Your task to perform on an android device: toggle priority inbox in the gmail app Image 0: 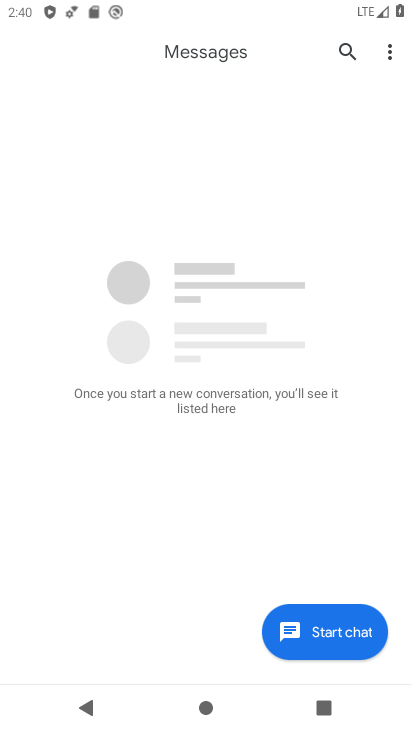
Step 0: press home button
Your task to perform on an android device: toggle priority inbox in the gmail app Image 1: 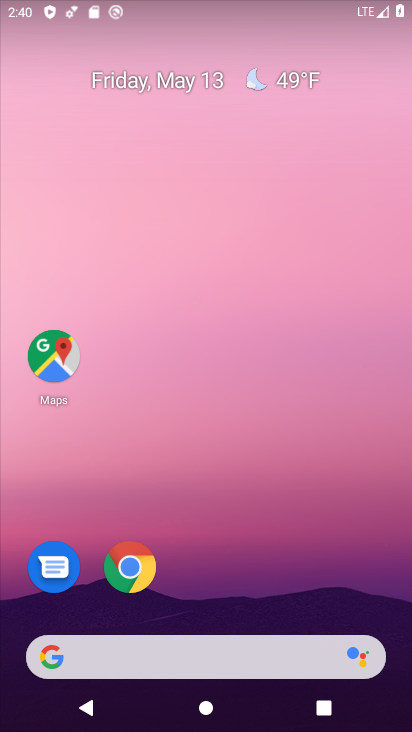
Step 1: drag from (229, 629) to (135, 89)
Your task to perform on an android device: toggle priority inbox in the gmail app Image 2: 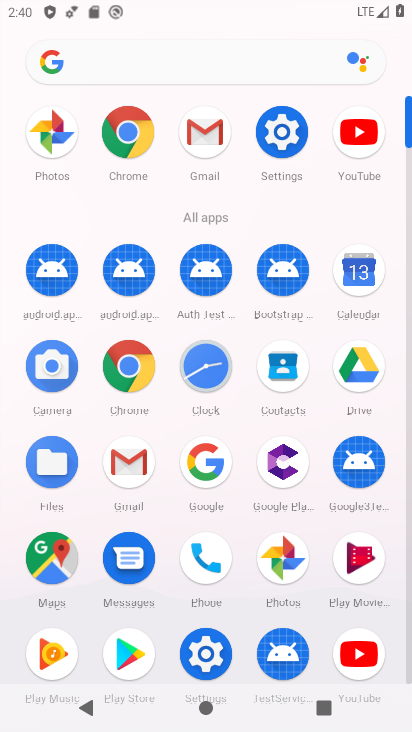
Step 2: click (140, 453)
Your task to perform on an android device: toggle priority inbox in the gmail app Image 3: 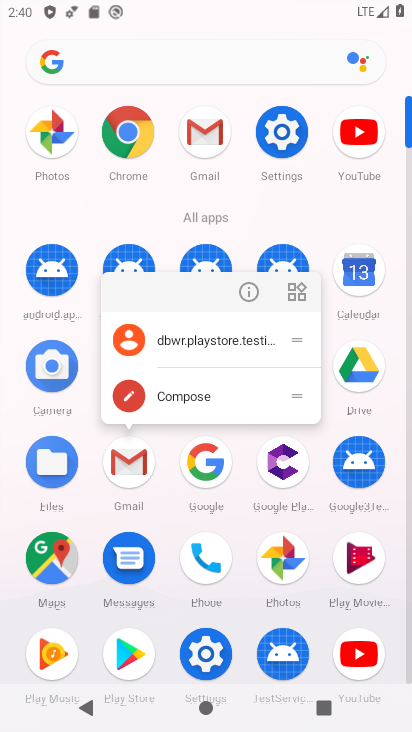
Step 3: click (131, 455)
Your task to perform on an android device: toggle priority inbox in the gmail app Image 4: 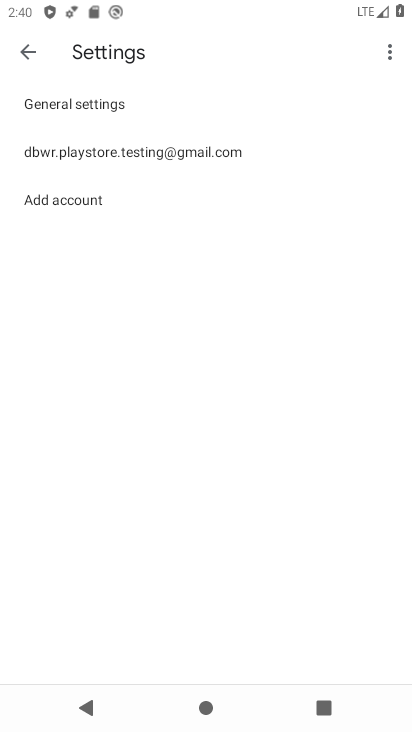
Step 4: click (90, 166)
Your task to perform on an android device: toggle priority inbox in the gmail app Image 5: 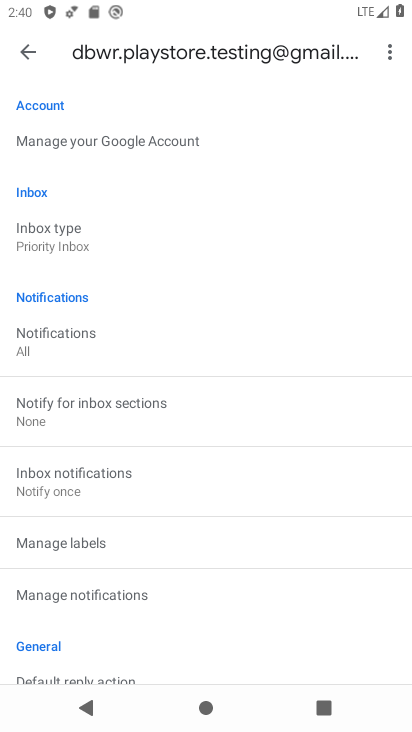
Step 5: click (49, 247)
Your task to perform on an android device: toggle priority inbox in the gmail app Image 6: 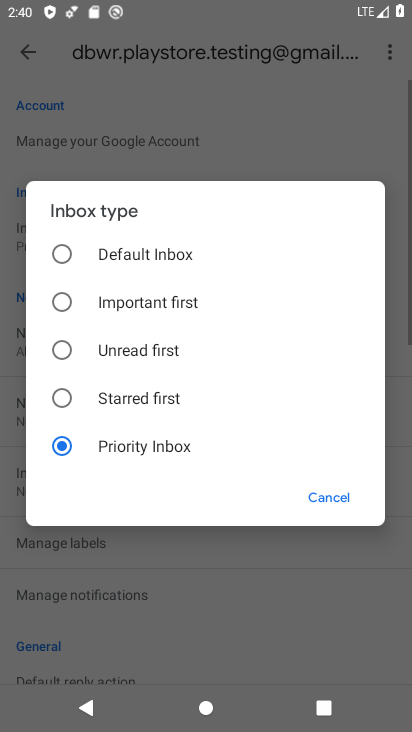
Step 6: click (92, 393)
Your task to perform on an android device: toggle priority inbox in the gmail app Image 7: 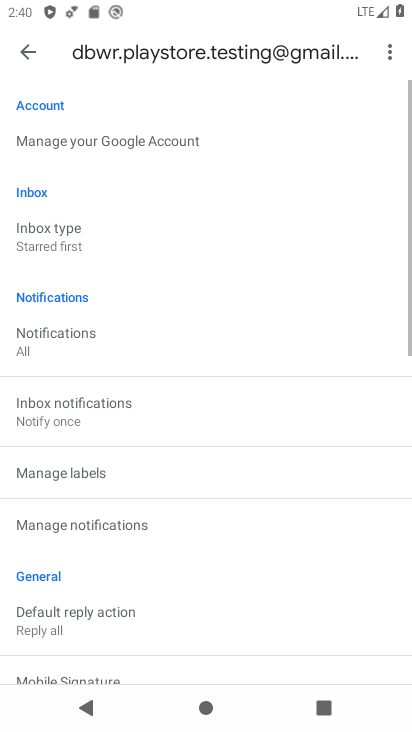
Step 7: task complete